Your task to perform on an android device: snooze an email in the gmail app Image 0: 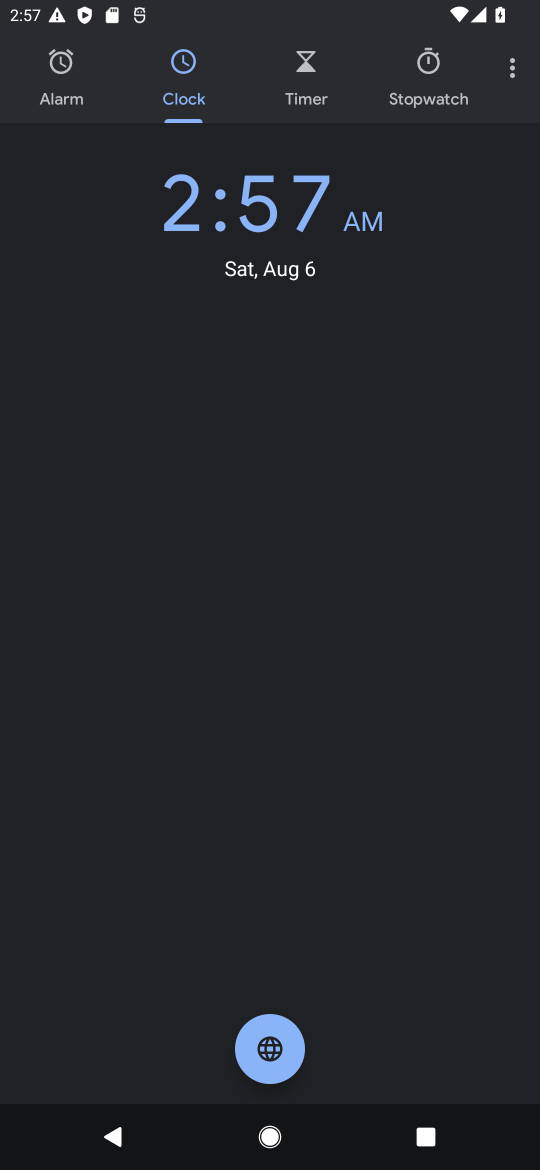
Step 0: press home button
Your task to perform on an android device: snooze an email in the gmail app Image 1: 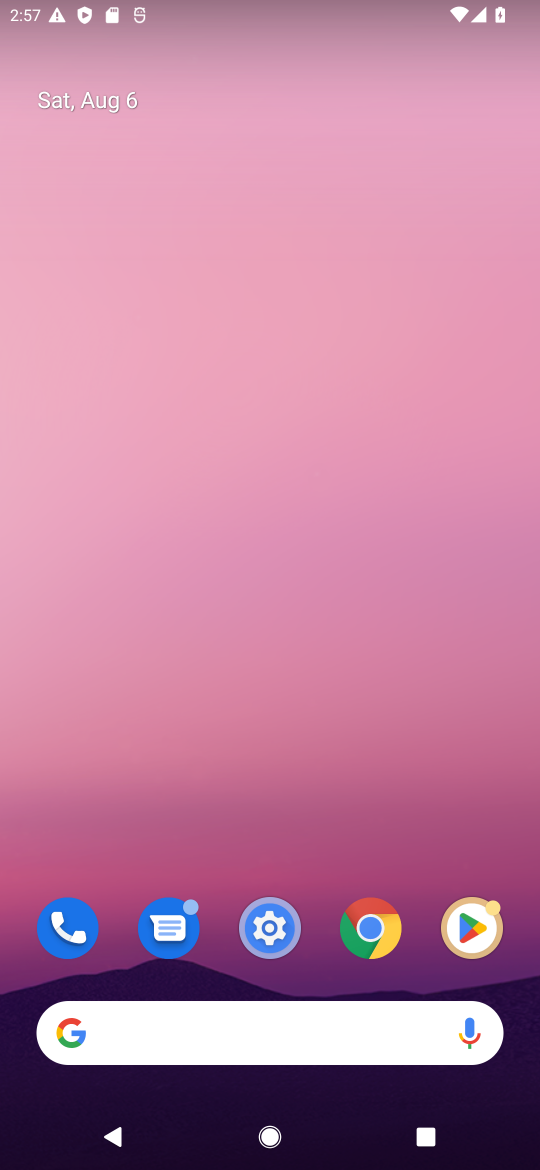
Step 1: drag from (405, 951) to (370, 184)
Your task to perform on an android device: snooze an email in the gmail app Image 2: 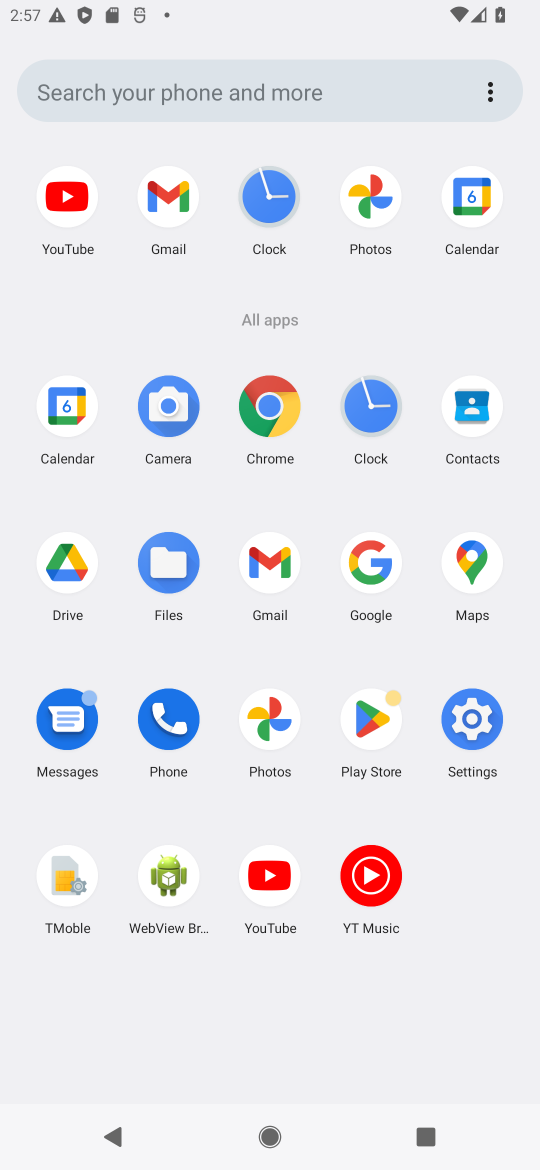
Step 2: click (265, 586)
Your task to perform on an android device: snooze an email in the gmail app Image 3: 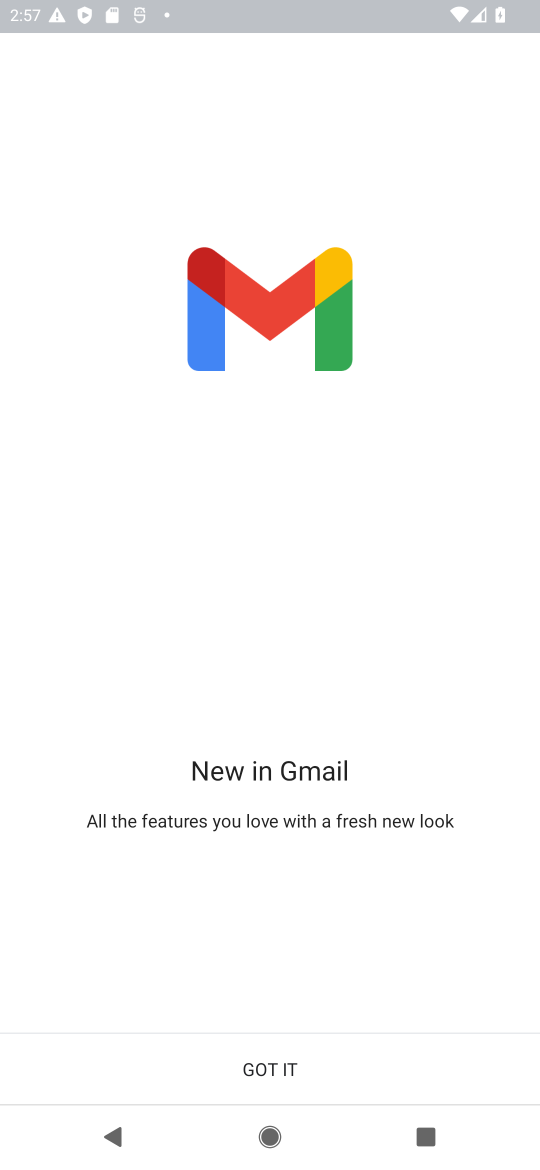
Step 3: click (373, 1061)
Your task to perform on an android device: snooze an email in the gmail app Image 4: 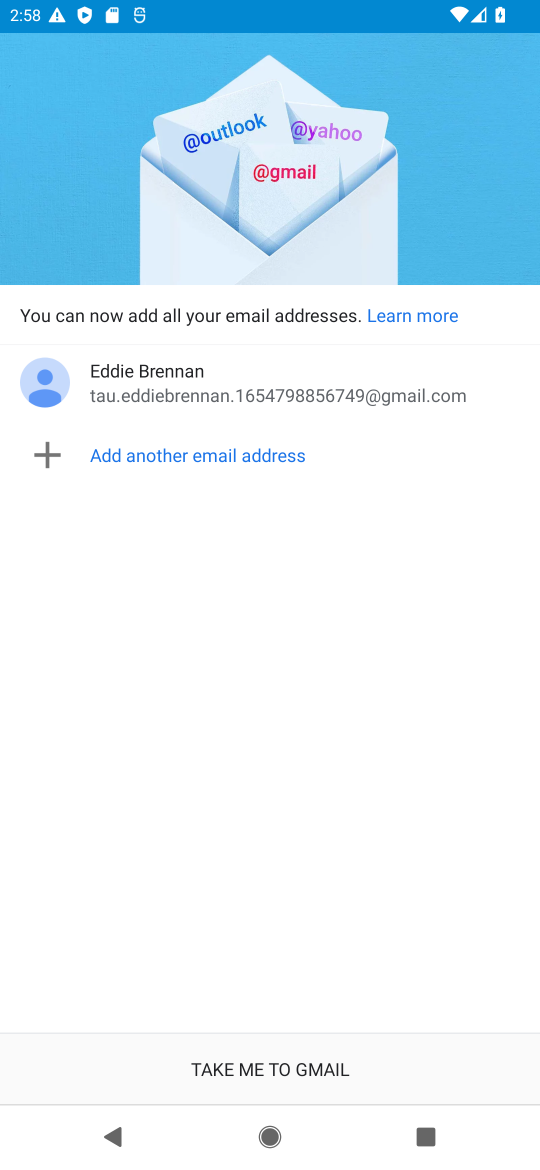
Step 4: click (369, 1074)
Your task to perform on an android device: snooze an email in the gmail app Image 5: 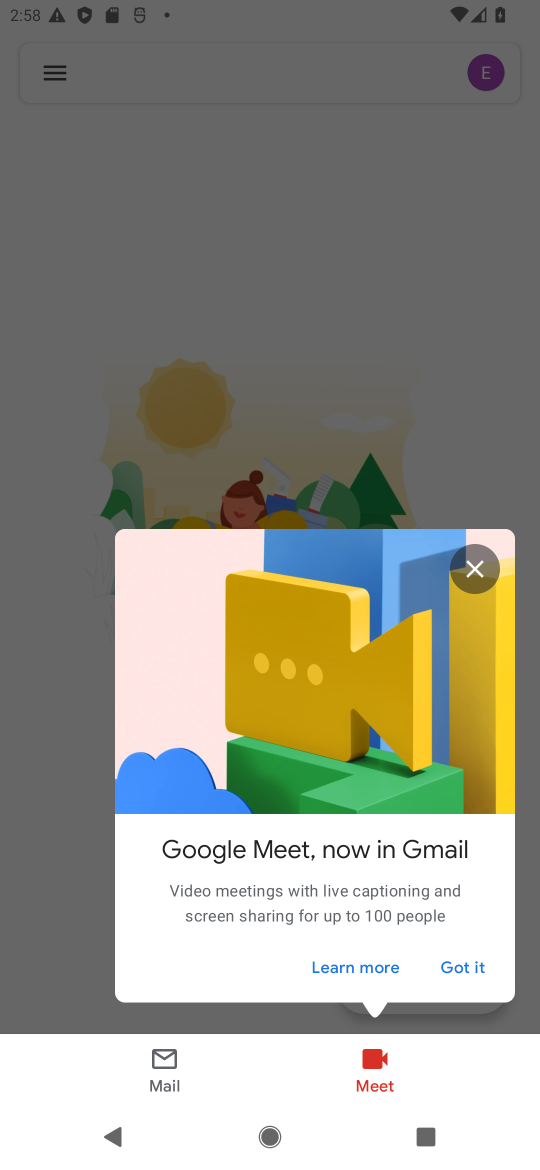
Step 5: click (471, 580)
Your task to perform on an android device: snooze an email in the gmail app Image 6: 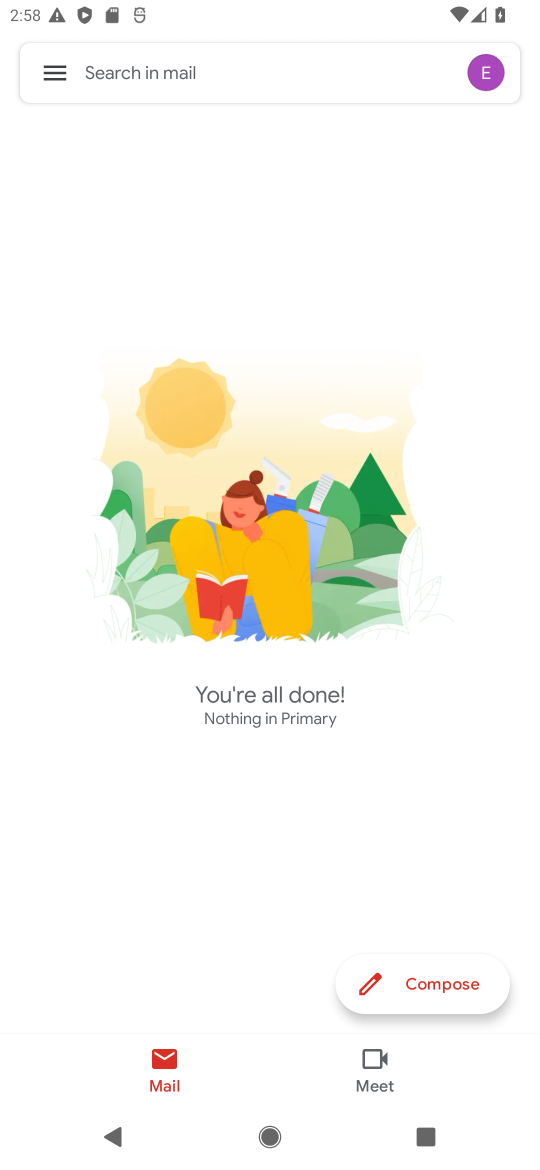
Step 6: task complete